Your task to perform on an android device: toggle translation in the chrome app Image 0: 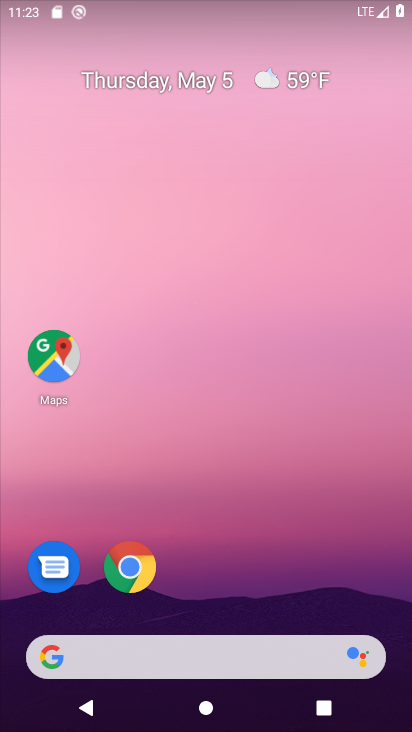
Step 0: click (128, 571)
Your task to perform on an android device: toggle translation in the chrome app Image 1: 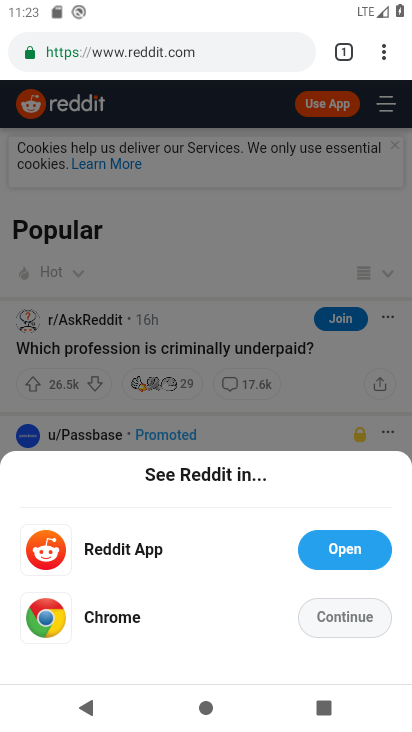
Step 1: drag from (386, 51) to (201, 624)
Your task to perform on an android device: toggle translation in the chrome app Image 2: 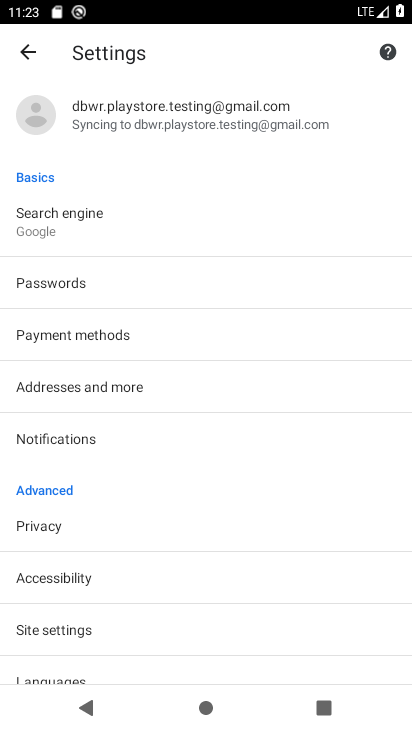
Step 2: drag from (134, 645) to (143, 538)
Your task to perform on an android device: toggle translation in the chrome app Image 3: 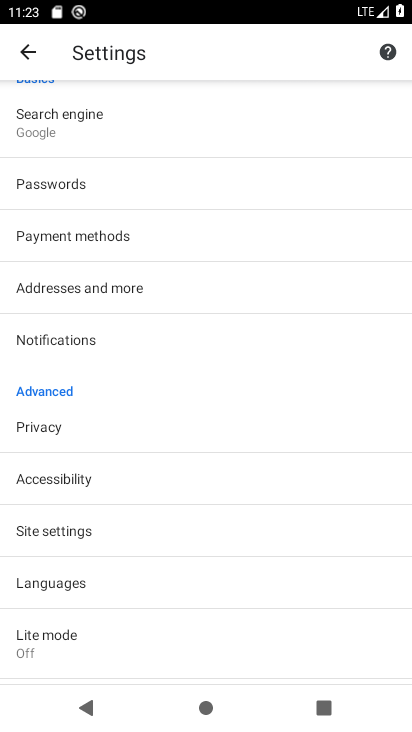
Step 3: click (88, 583)
Your task to perform on an android device: toggle translation in the chrome app Image 4: 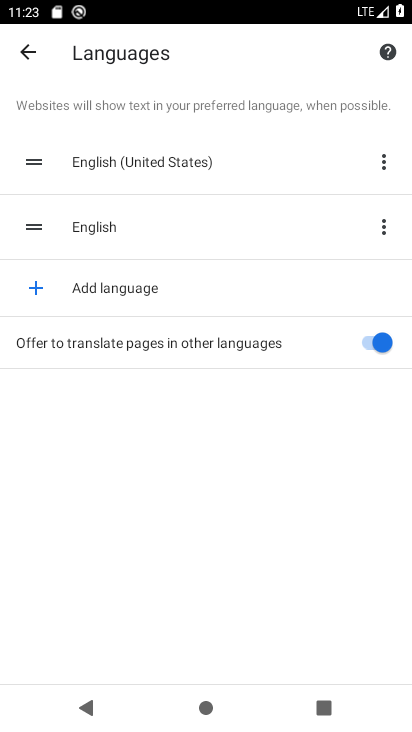
Step 4: click (371, 346)
Your task to perform on an android device: toggle translation in the chrome app Image 5: 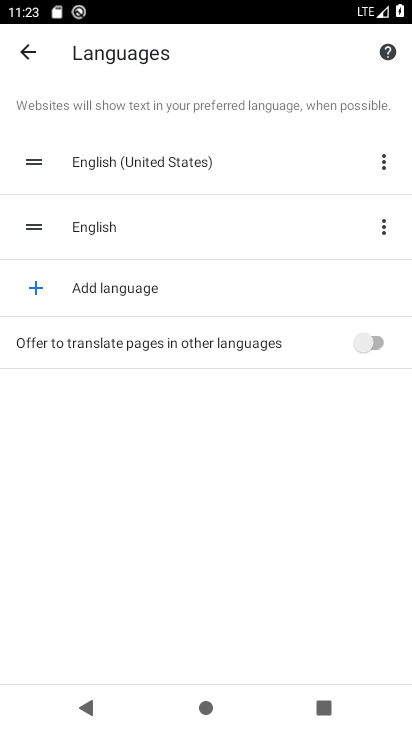
Step 5: task complete